Your task to perform on an android device: turn on location history Image 0: 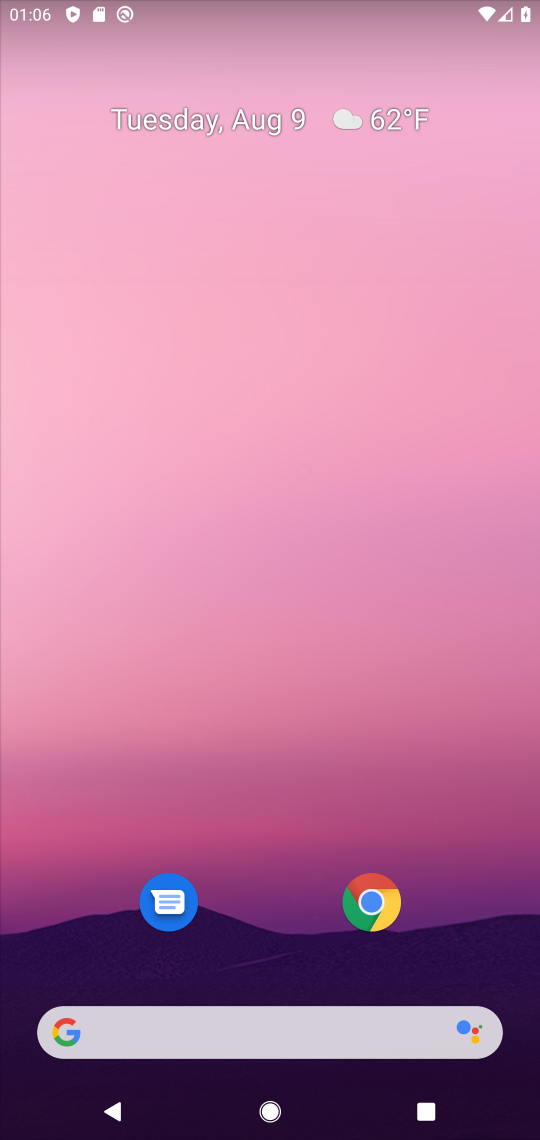
Step 0: press home button
Your task to perform on an android device: turn on location history Image 1: 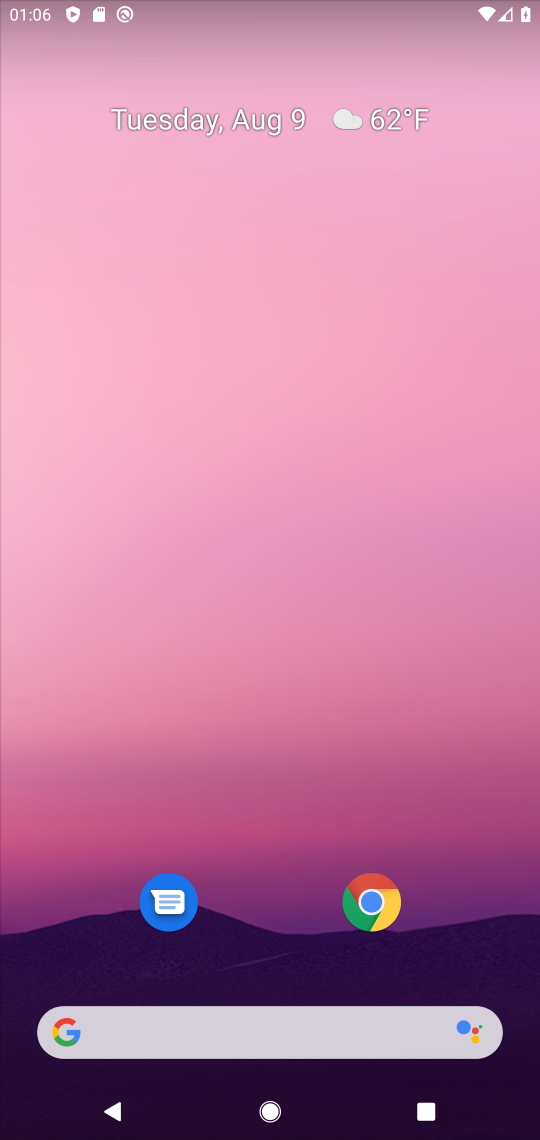
Step 1: drag from (242, 977) to (195, 424)
Your task to perform on an android device: turn on location history Image 2: 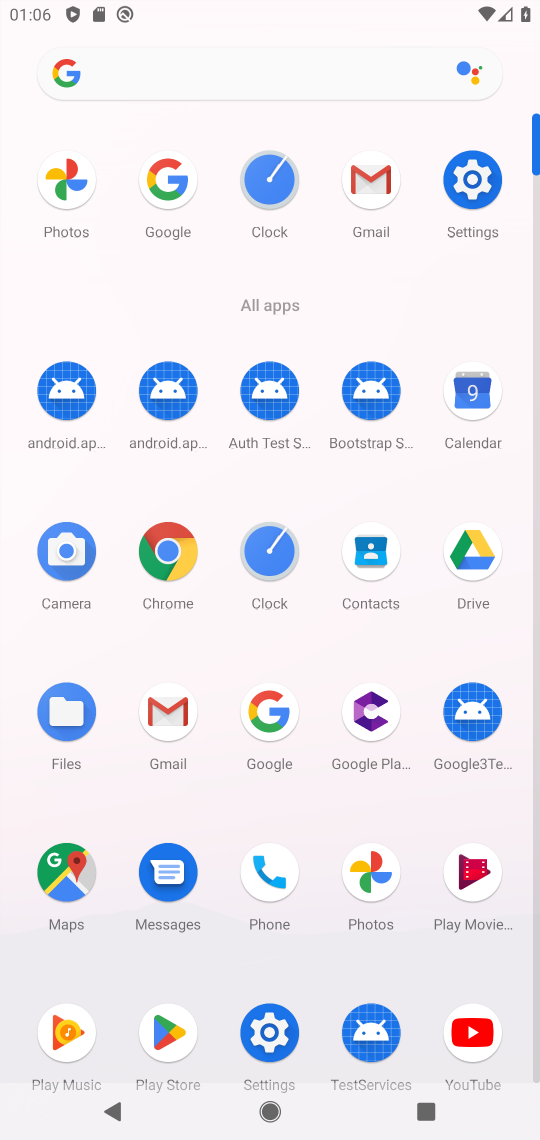
Step 2: click (255, 1034)
Your task to perform on an android device: turn on location history Image 3: 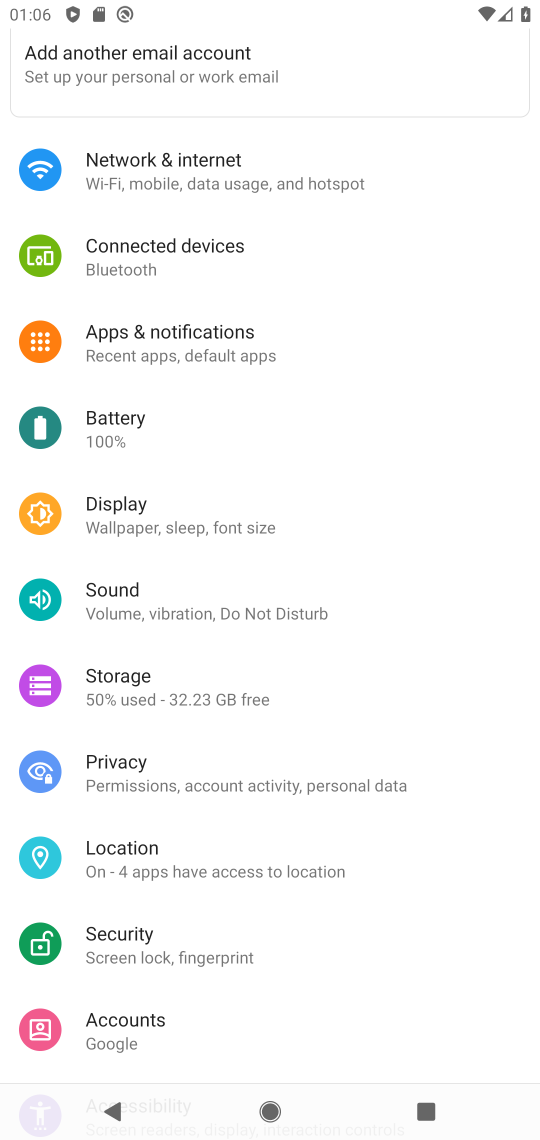
Step 3: click (114, 856)
Your task to perform on an android device: turn on location history Image 4: 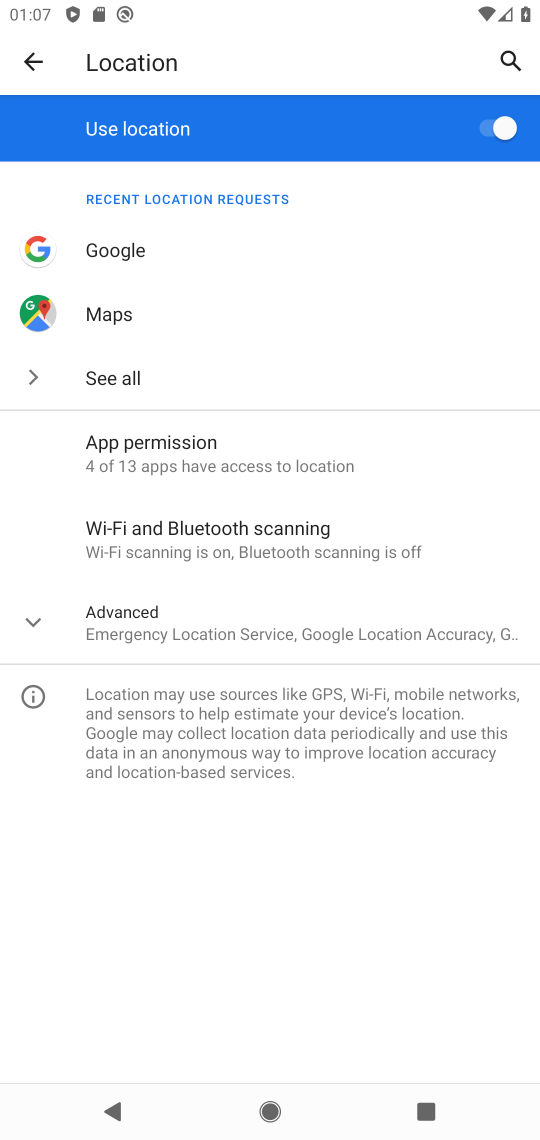
Step 4: click (181, 622)
Your task to perform on an android device: turn on location history Image 5: 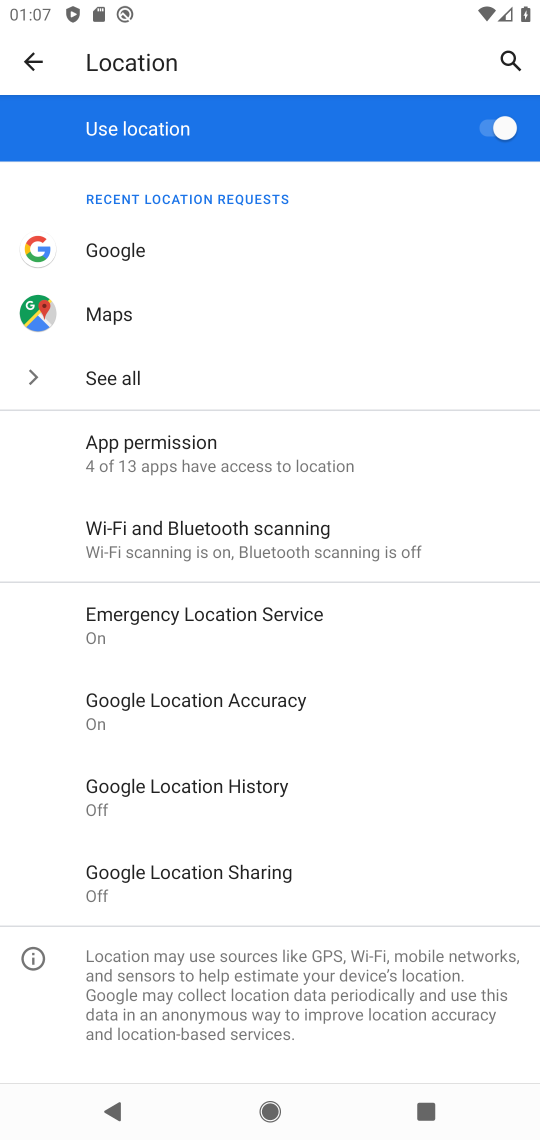
Step 5: click (149, 795)
Your task to perform on an android device: turn on location history Image 6: 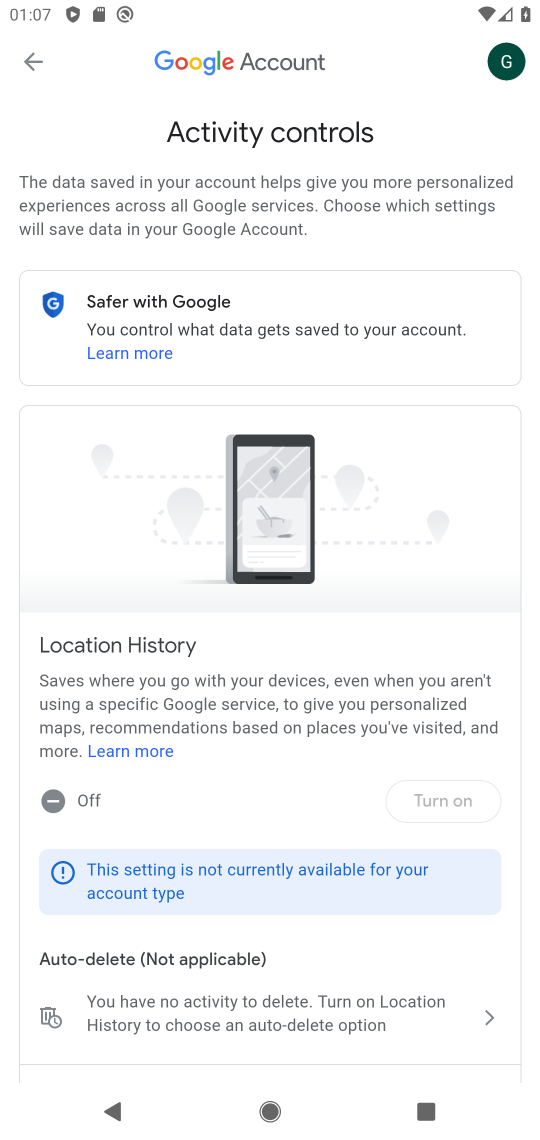
Step 6: task complete